Your task to perform on an android device: open a bookmark in the chrome app Image 0: 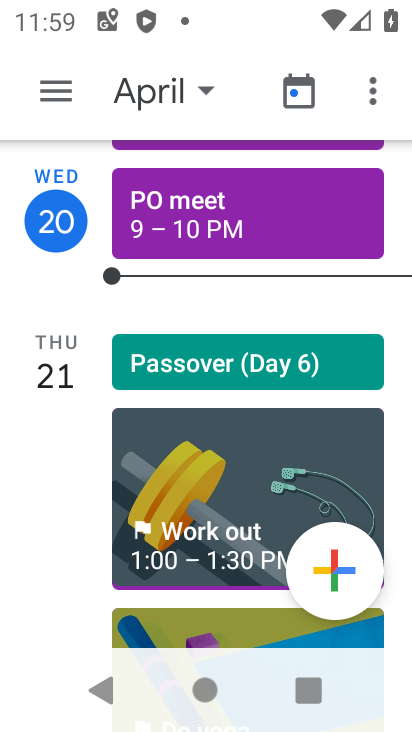
Step 0: drag from (222, 492) to (245, 125)
Your task to perform on an android device: open a bookmark in the chrome app Image 1: 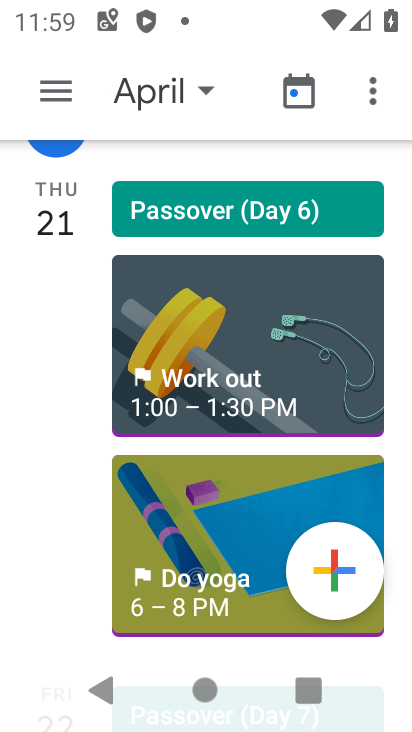
Step 1: press home button
Your task to perform on an android device: open a bookmark in the chrome app Image 2: 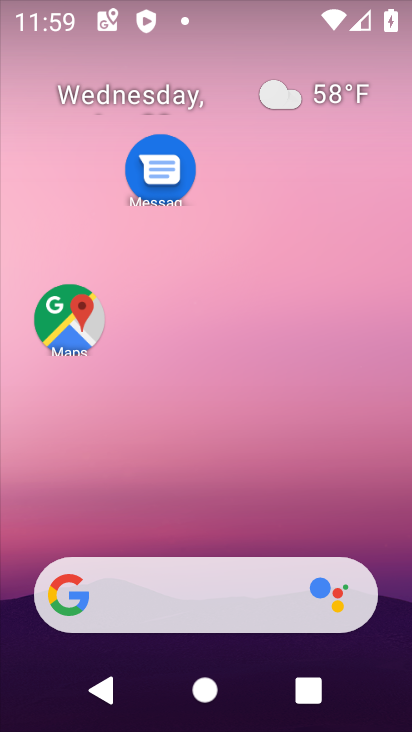
Step 2: drag from (215, 514) to (180, 15)
Your task to perform on an android device: open a bookmark in the chrome app Image 3: 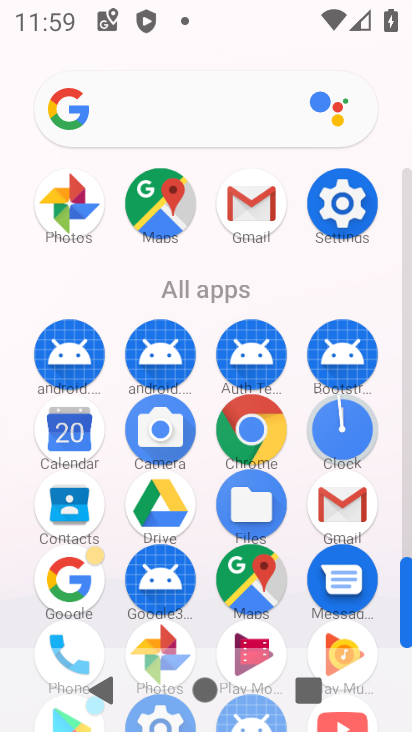
Step 3: click (265, 417)
Your task to perform on an android device: open a bookmark in the chrome app Image 4: 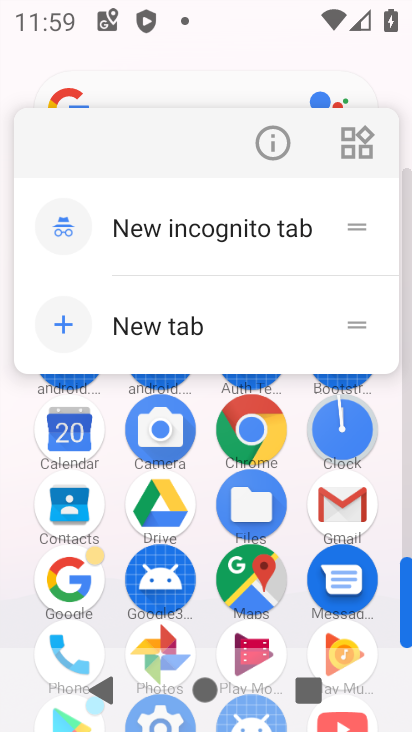
Step 4: click (268, 136)
Your task to perform on an android device: open a bookmark in the chrome app Image 5: 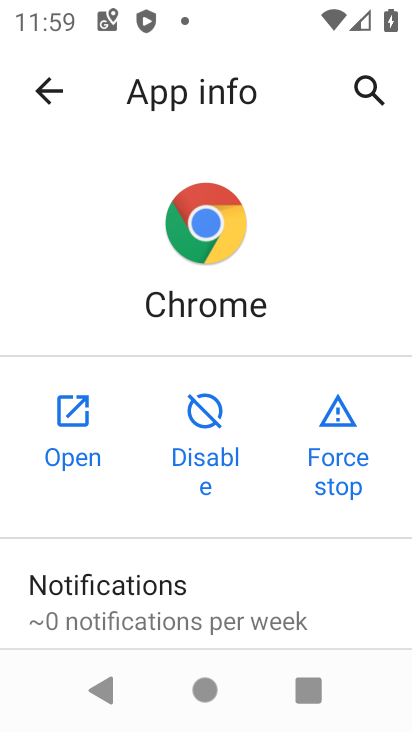
Step 5: click (43, 465)
Your task to perform on an android device: open a bookmark in the chrome app Image 6: 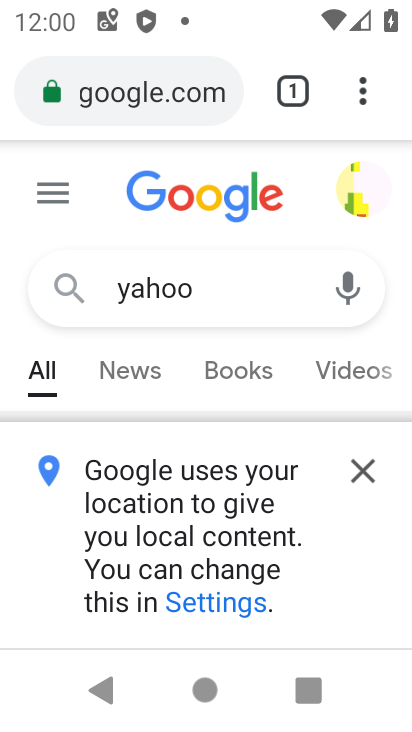
Step 6: drag from (369, 82) to (161, 352)
Your task to perform on an android device: open a bookmark in the chrome app Image 7: 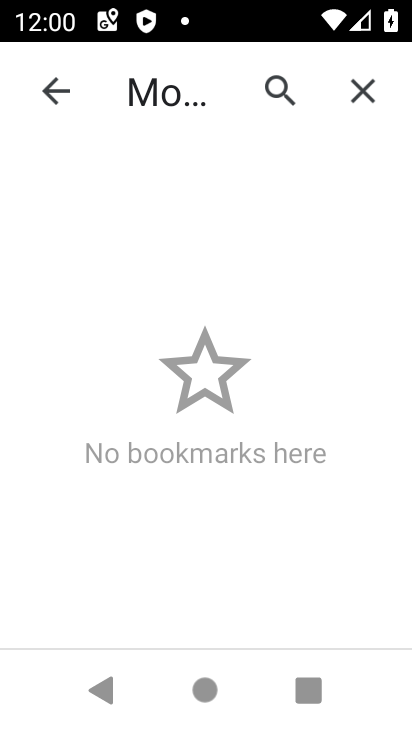
Step 7: drag from (233, 532) to (263, 94)
Your task to perform on an android device: open a bookmark in the chrome app Image 8: 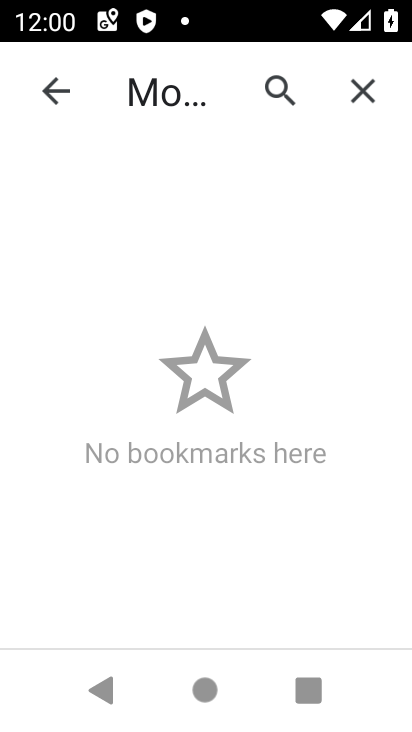
Step 8: click (293, 159)
Your task to perform on an android device: open a bookmark in the chrome app Image 9: 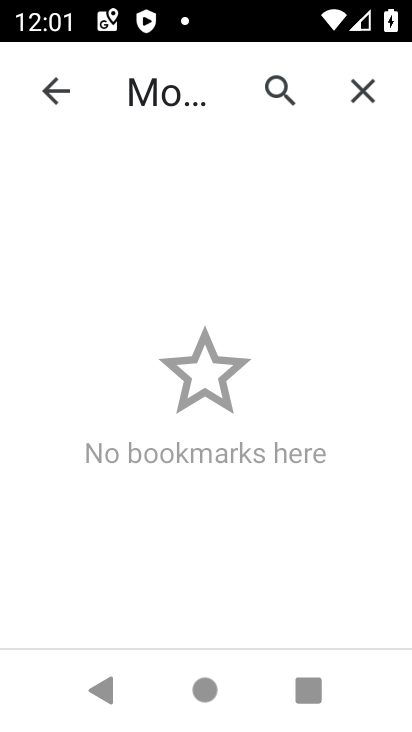
Step 9: task complete